Your task to perform on an android device: Go to Amazon Image 0: 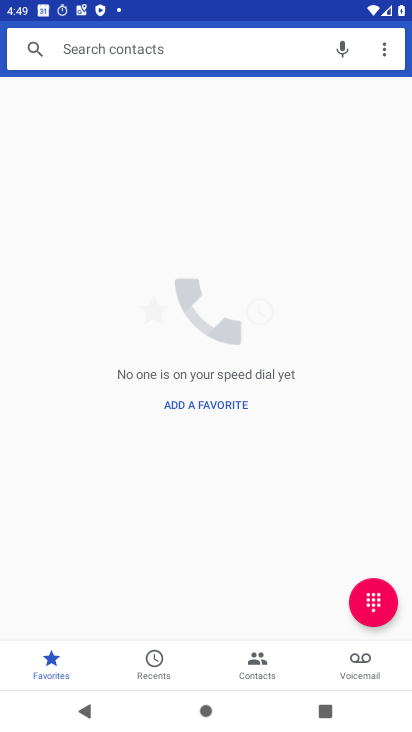
Step 0: press home button
Your task to perform on an android device: Go to Amazon Image 1: 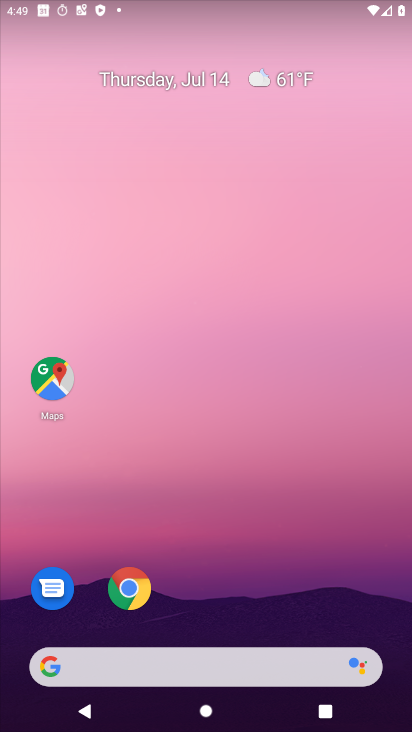
Step 1: click (127, 590)
Your task to perform on an android device: Go to Amazon Image 2: 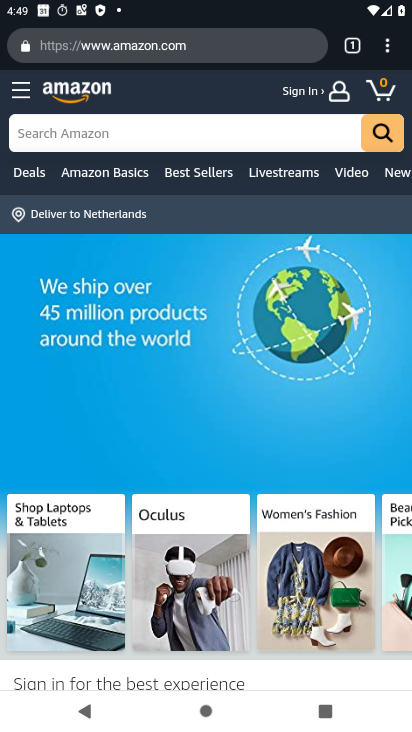
Step 2: click (199, 46)
Your task to perform on an android device: Go to Amazon Image 3: 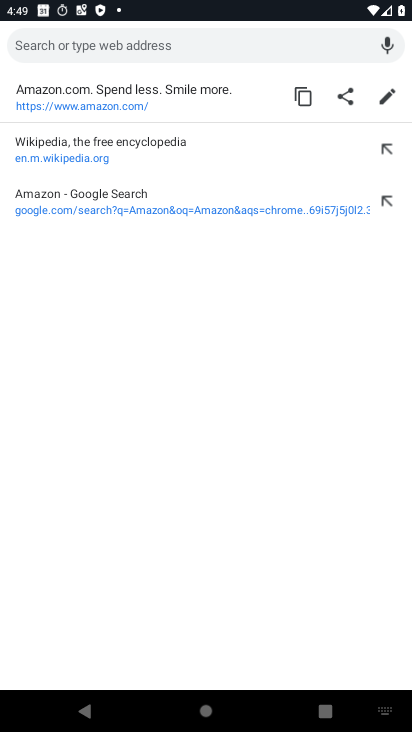
Step 3: type "Amazon"
Your task to perform on an android device: Go to Amazon Image 4: 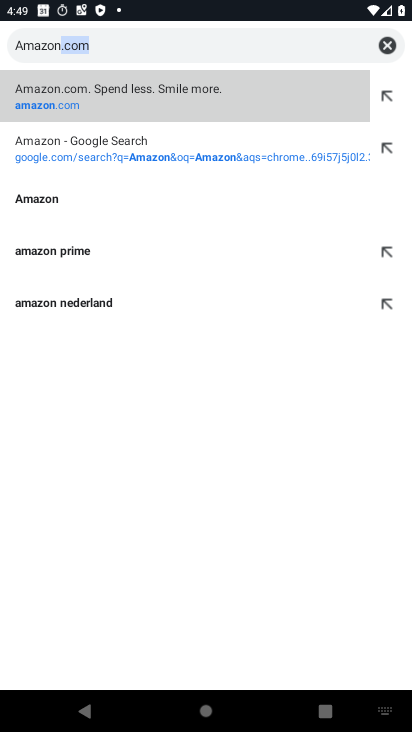
Step 4: click (91, 105)
Your task to perform on an android device: Go to Amazon Image 5: 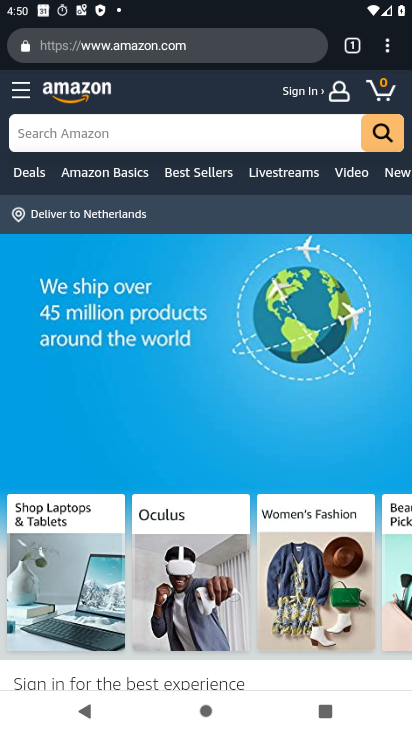
Step 5: task complete